Your task to perform on an android device: Go to calendar. Show me events next week Image 0: 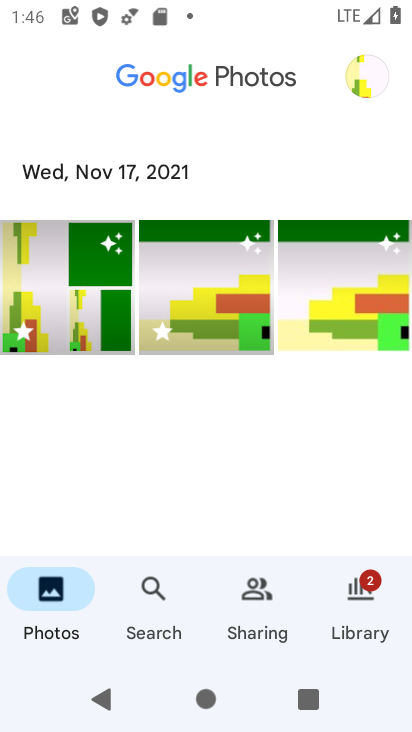
Step 0: press home button
Your task to perform on an android device: Go to calendar. Show me events next week Image 1: 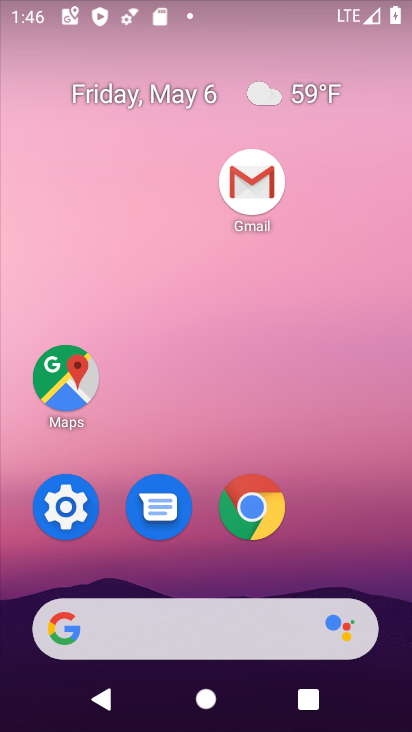
Step 1: drag from (340, 526) to (284, 82)
Your task to perform on an android device: Go to calendar. Show me events next week Image 2: 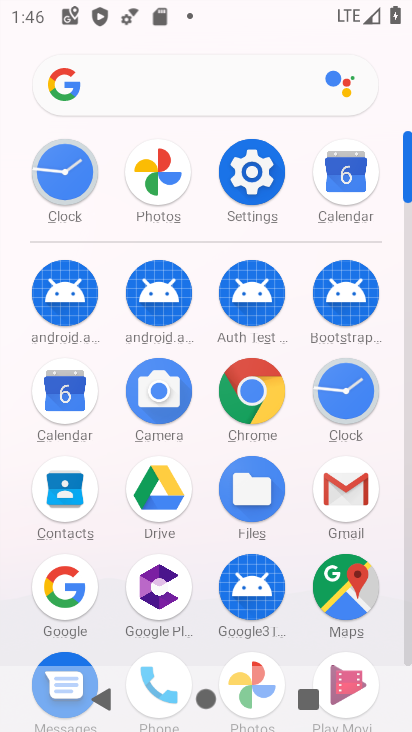
Step 2: click (57, 380)
Your task to perform on an android device: Go to calendar. Show me events next week Image 3: 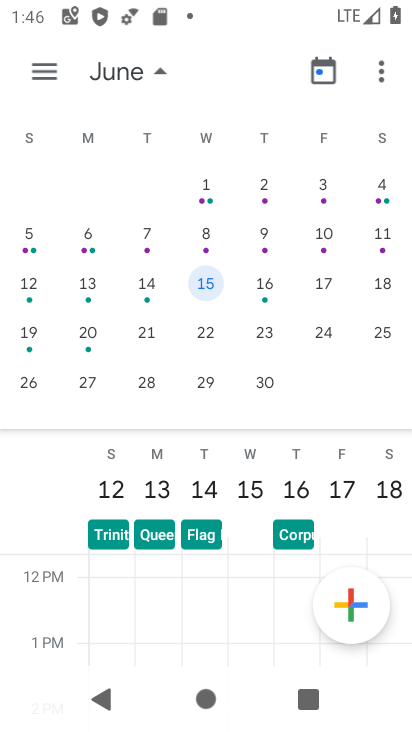
Step 3: click (158, 70)
Your task to perform on an android device: Go to calendar. Show me events next week Image 4: 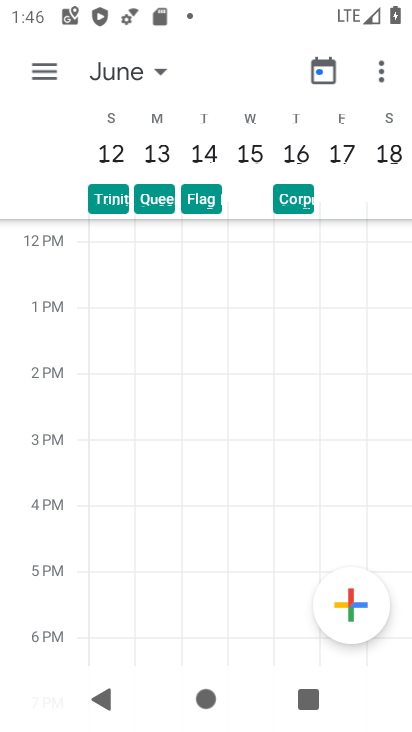
Step 4: click (157, 72)
Your task to perform on an android device: Go to calendar. Show me events next week Image 5: 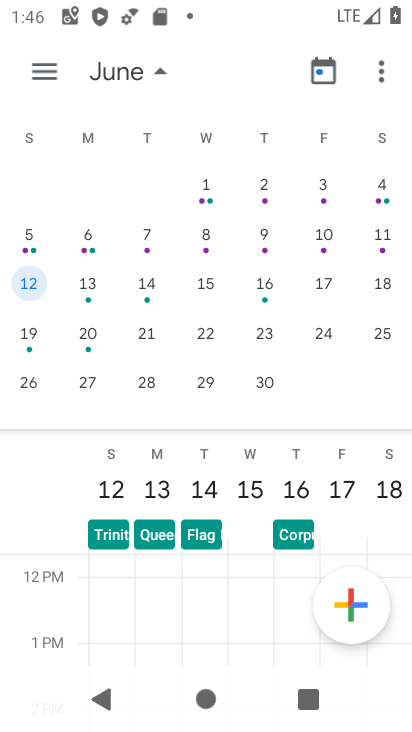
Step 5: drag from (19, 240) to (410, 287)
Your task to perform on an android device: Go to calendar. Show me events next week Image 6: 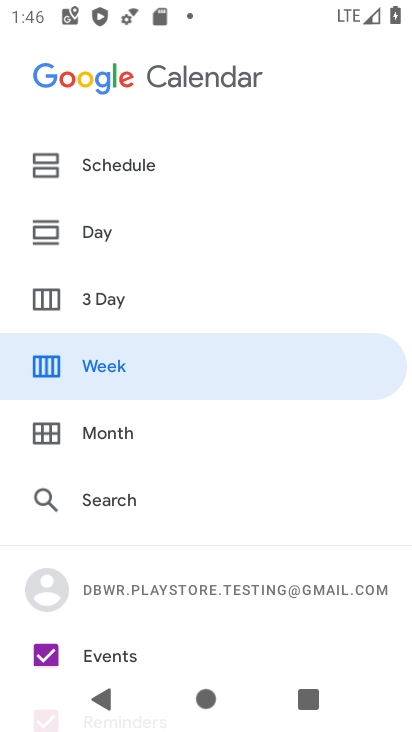
Step 6: click (124, 357)
Your task to perform on an android device: Go to calendar. Show me events next week Image 7: 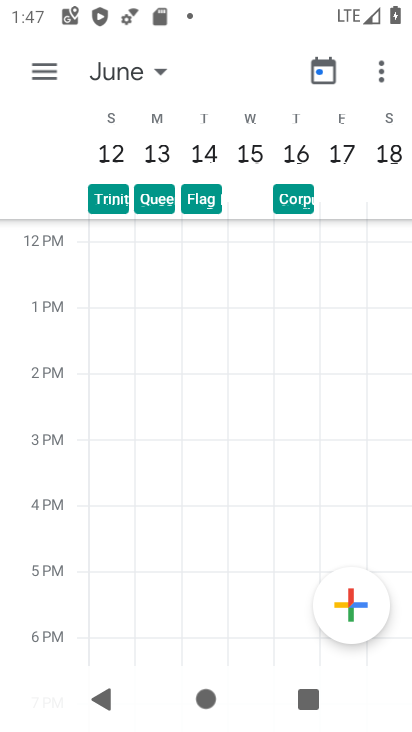
Step 7: click (155, 72)
Your task to perform on an android device: Go to calendar. Show me events next week Image 8: 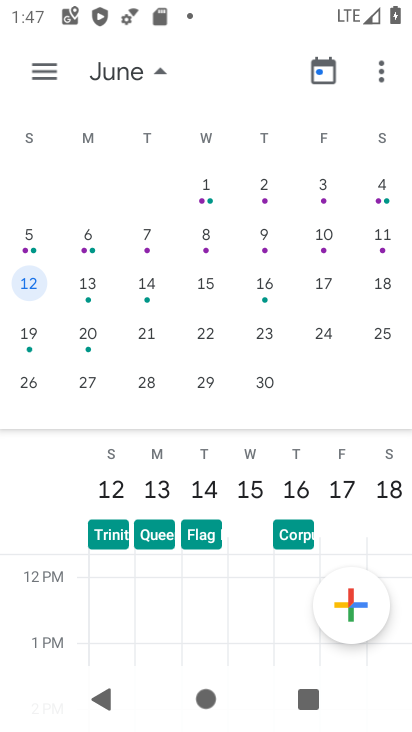
Step 8: drag from (59, 253) to (385, 285)
Your task to perform on an android device: Go to calendar. Show me events next week Image 9: 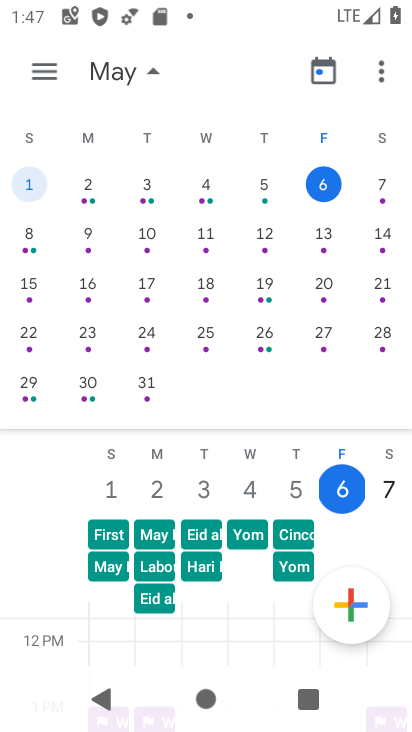
Step 9: click (143, 236)
Your task to perform on an android device: Go to calendar. Show me events next week Image 10: 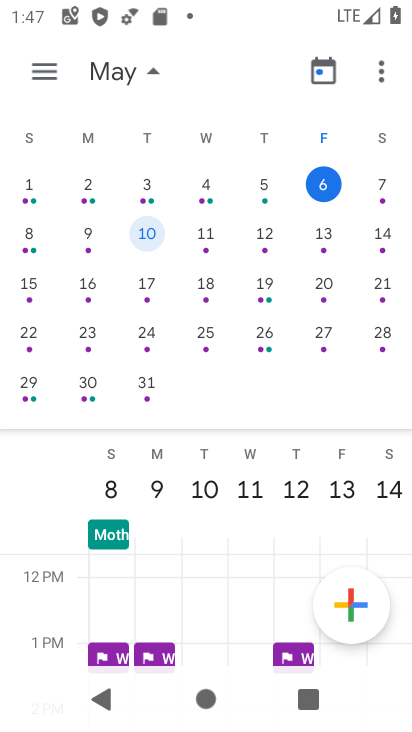
Step 10: task complete